Your task to perform on an android device: Go to Reddit.com Image 0: 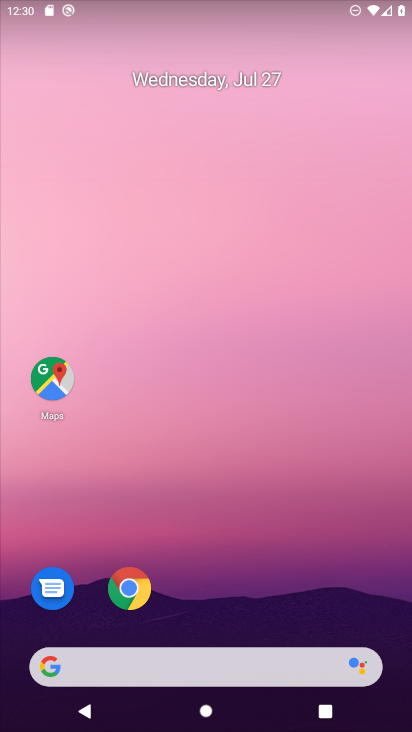
Step 0: click (131, 660)
Your task to perform on an android device: Go to Reddit.com Image 1: 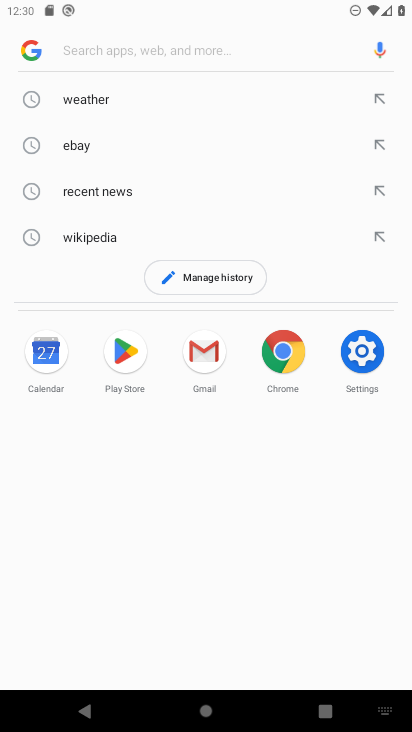
Step 1: type "Reddit.com"
Your task to perform on an android device: Go to Reddit.com Image 2: 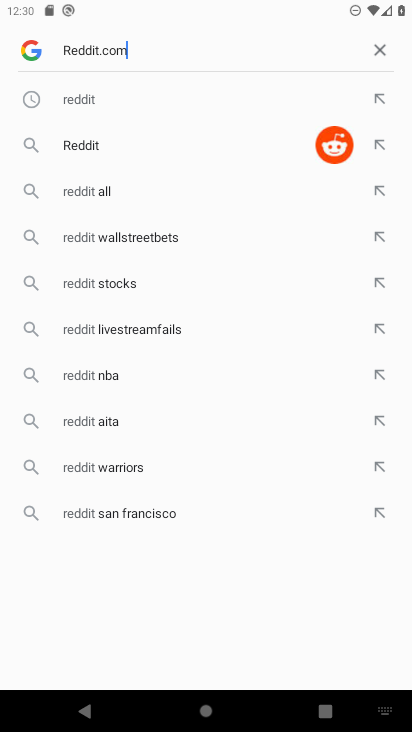
Step 2: type ""
Your task to perform on an android device: Go to Reddit.com Image 3: 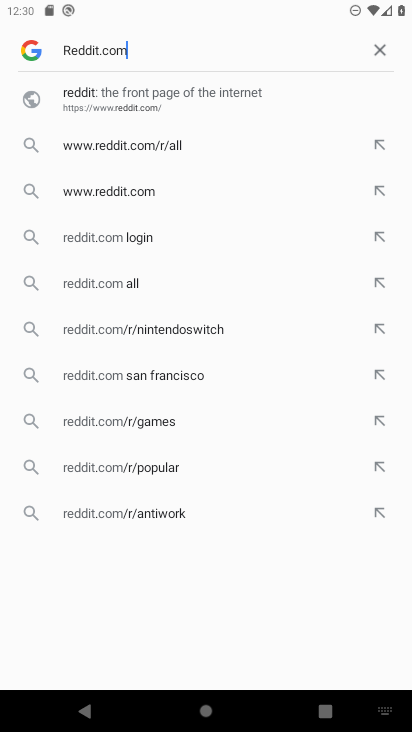
Step 3: type ""
Your task to perform on an android device: Go to Reddit.com Image 4: 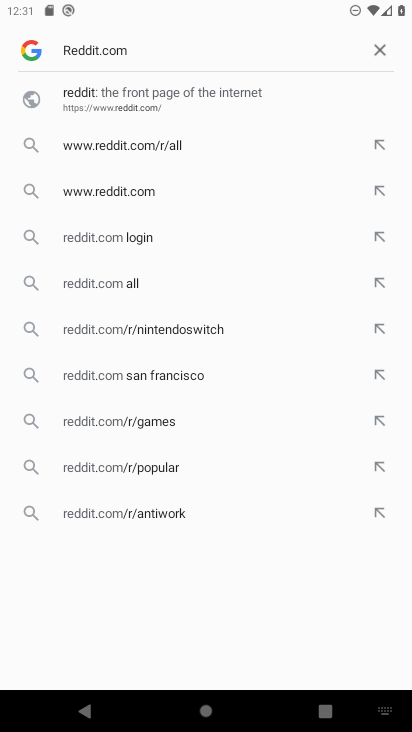
Step 4: type ""
Your task to perform on an android device: Go to Reddit.com Image 5: 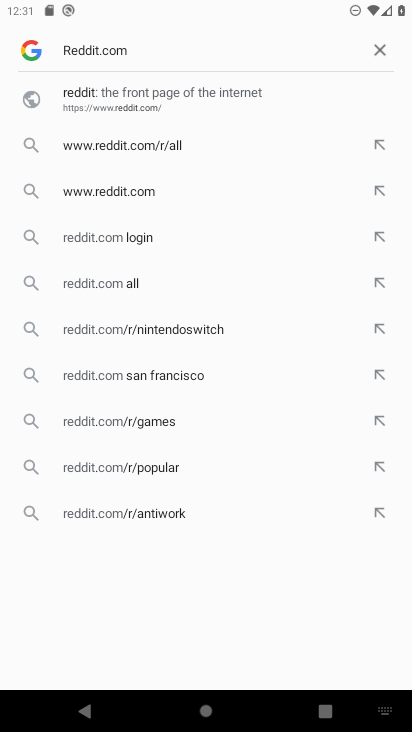
Step 5: task complete